Your task to perform on an android device: What's on my calendar today? Image 0: 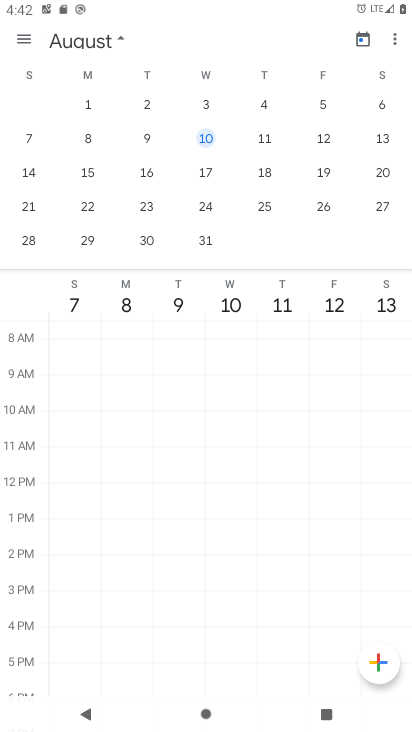
Step 0: press home button
Your task to perform on an android device: What's on my calendar today? Image 1: 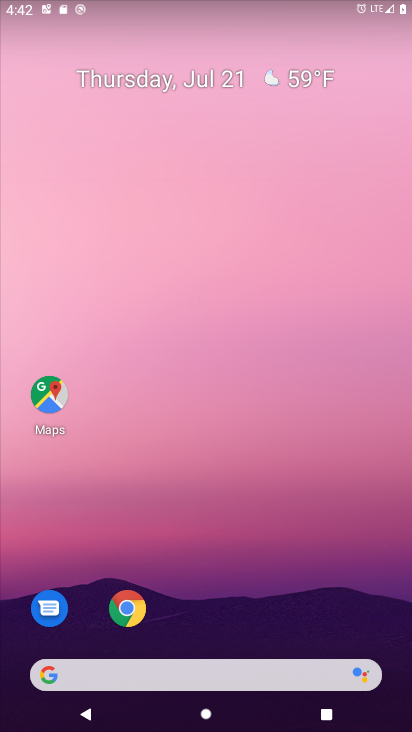
Step 1: drag from (273, 668) to (300, 121)
Your task to perform on an android device: What's on my calendar today? Image 2: 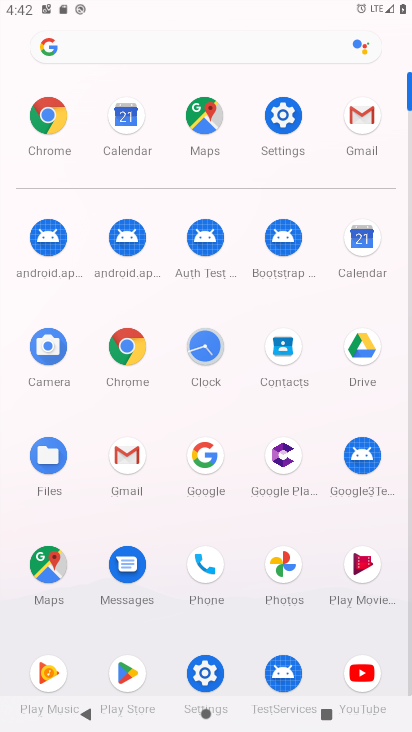
Step 2: click (361, 234)
Your task to perform on an android device: What's on my calendar today? Image 3: 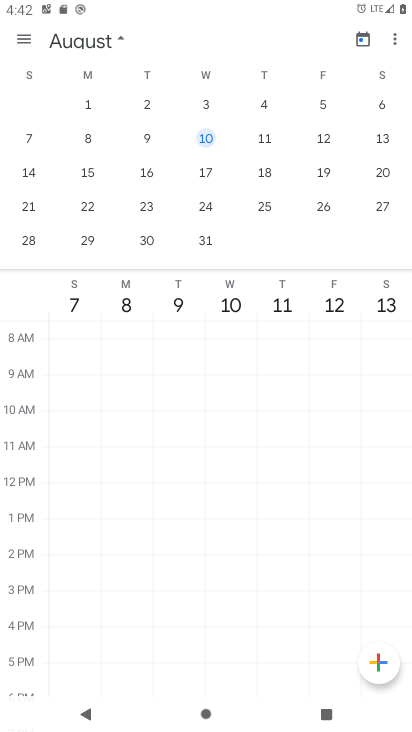
Step 3: drag from (51, 172) to (364, 201)
Your task to perform on an android device: What's on my calendar today? Image 4: 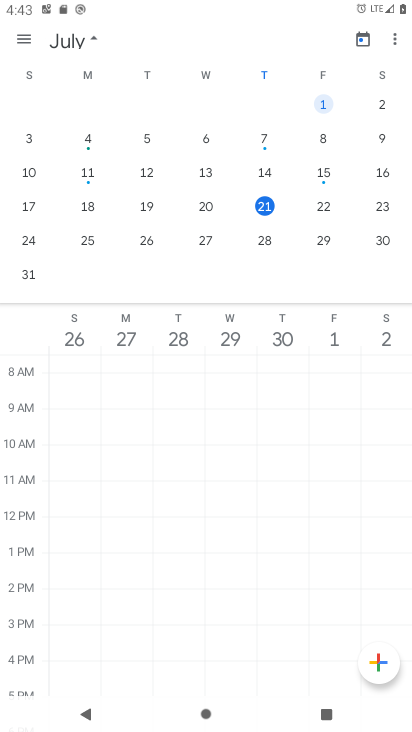
Step 4: click (270, 211)
Your task to perform on an android device: What's on my calendar today? Image 5: 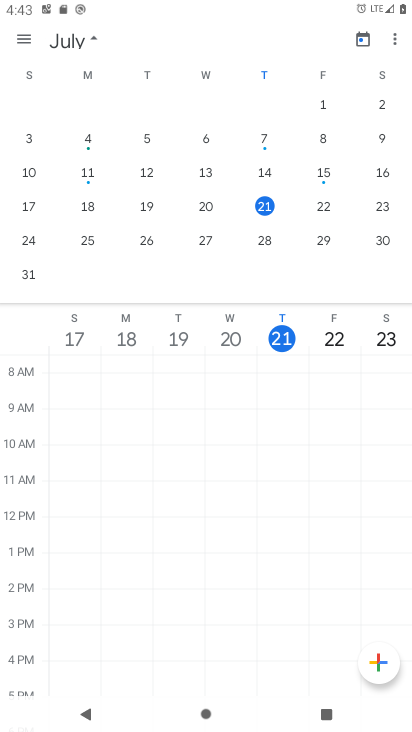
Step 5: task complete